Your task to perform on an android device: Open privacy settings Image 0: 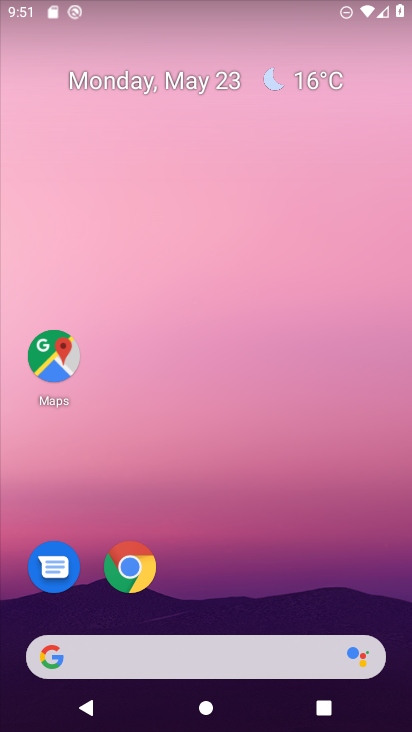
Step 0: drag from (206, 583) to (208, 36)
Your task to perform on an android device: Open privacy settings Image 1: 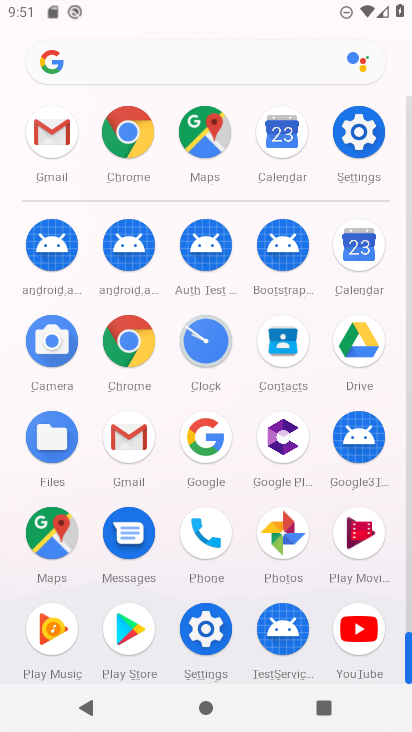
Step 1: click (209, 620)
Your task to perform on an android device: Open privacy settings Image 2: 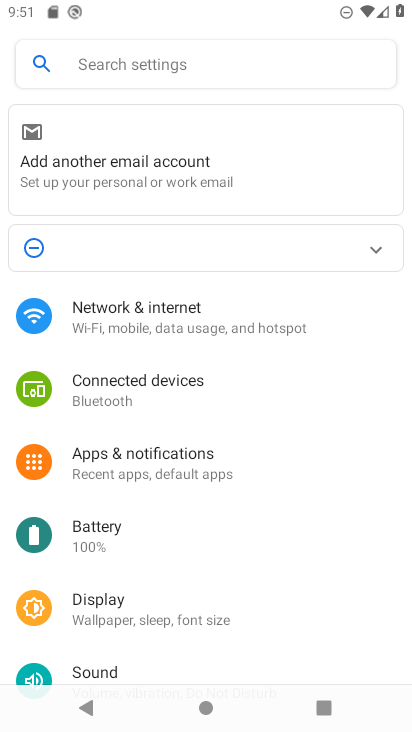
Step 2: drag from (188, 600) to (192, 210)
Your task to perform on an android device: Open privacy settings Image 3: 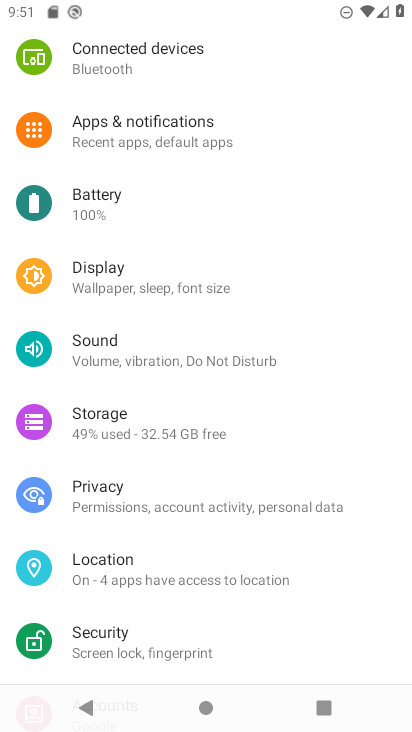
Step 3: drag from (198, 147) to (206, 409)
Your task to perform on an android device: Open privacy settings Image 4: 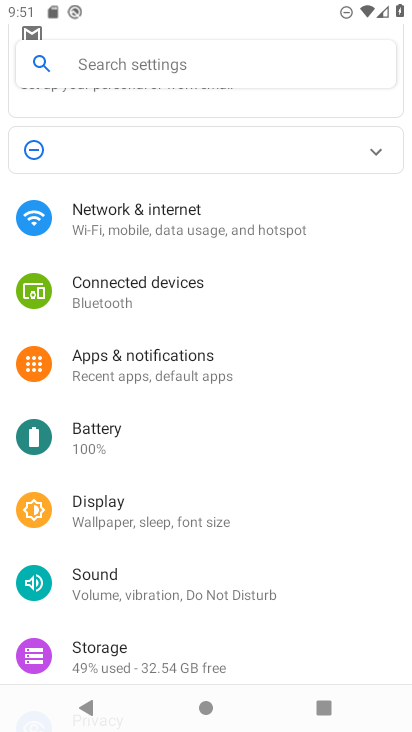
Step 4: drag from (176, 319) to (248, 191)
Your task to perform on an android device: Open privacy settings Image 5: 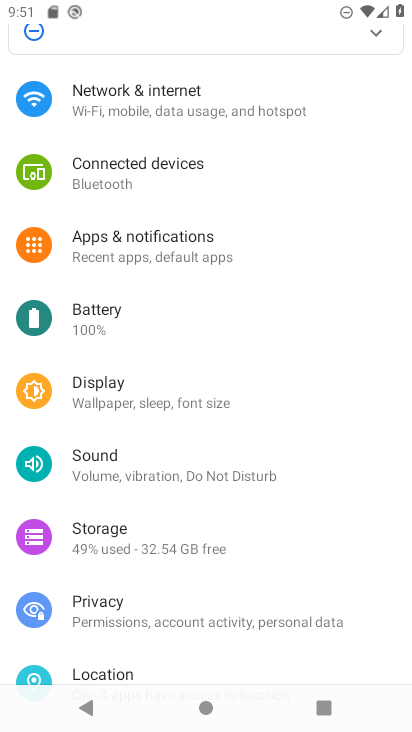
Step 5: click (138, 599)
Your task to perform on an android device: Open privacy settings Image 6: 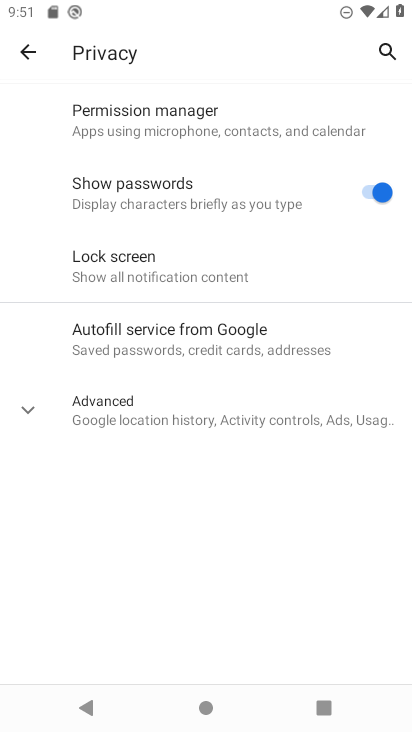
Step 6: task complete